Your task to perform on an android device: Go to wifi settings Image 0: 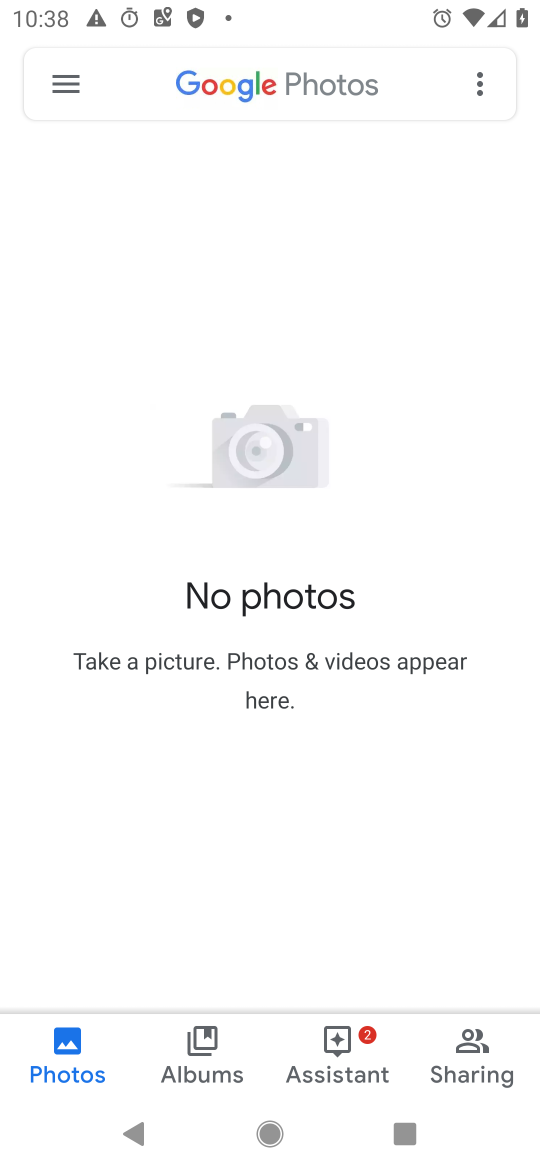
Step 0: press home button
Your task to perform on an android device: Go to wifi settings Image 1: 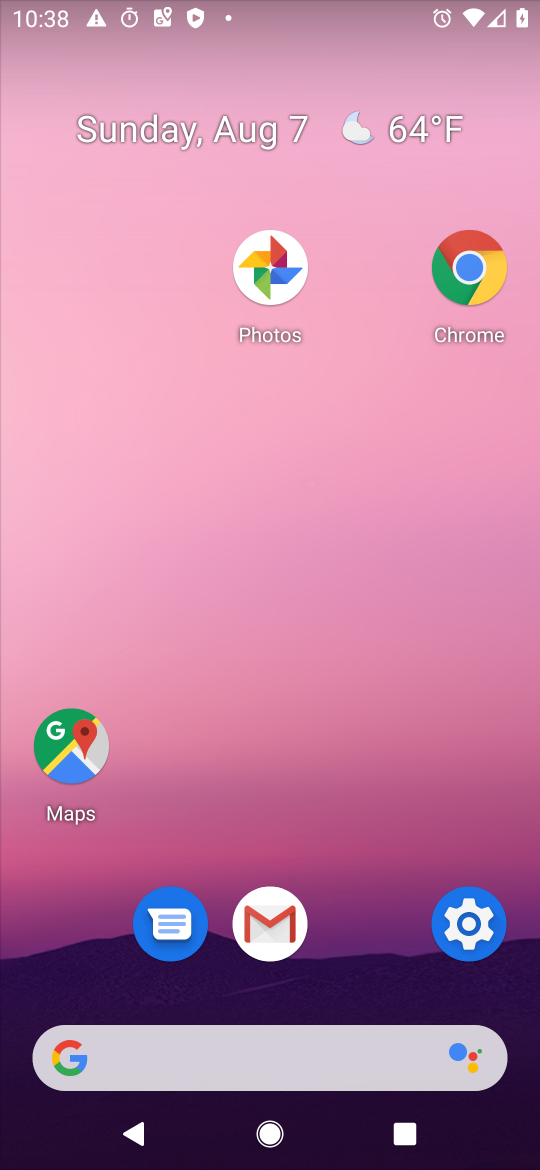
Step 1: drag from (351, 1089) to (335, 427)
Your task to perform on an android device: Go to wifi settings Image 2: 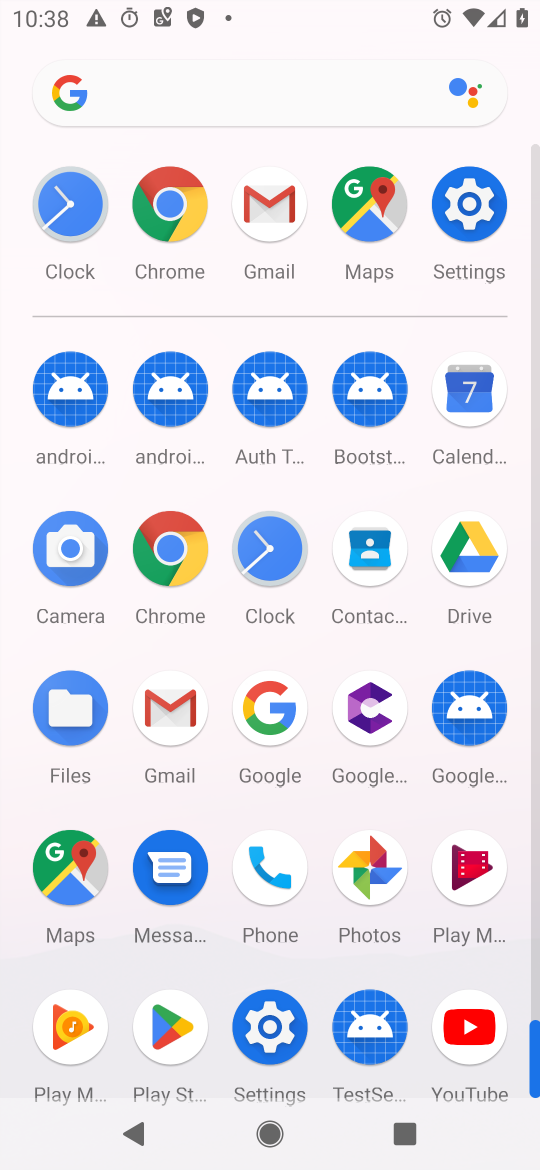
Step 2: click (458, 213)
Your task to perform on an android device: Go to wifi settings Image 3: 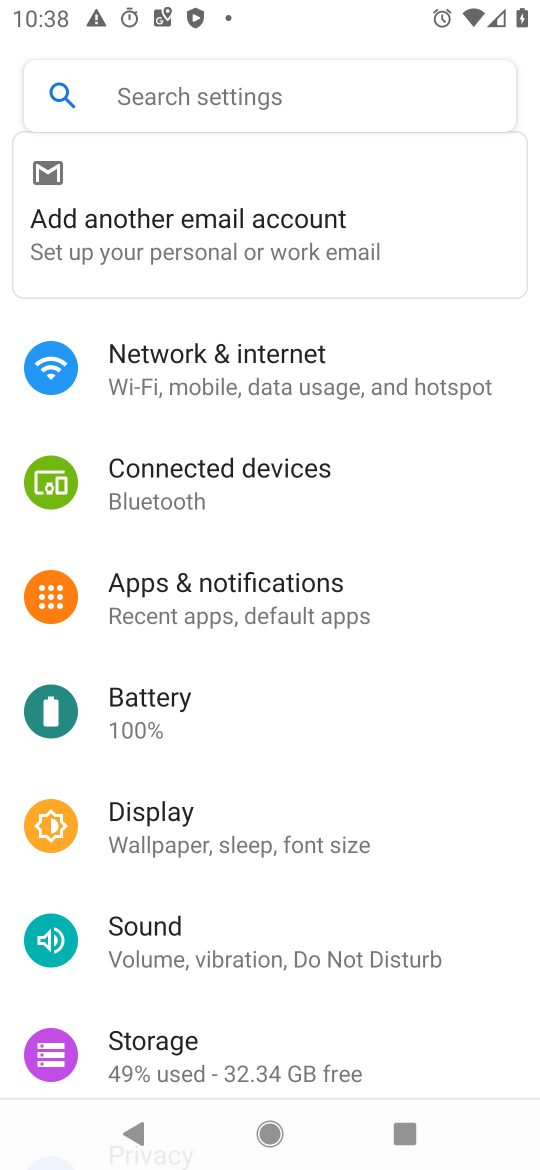
Step 3: click (209, 364)
Your task to perform on an android device: Go to wifi settings Image 4: 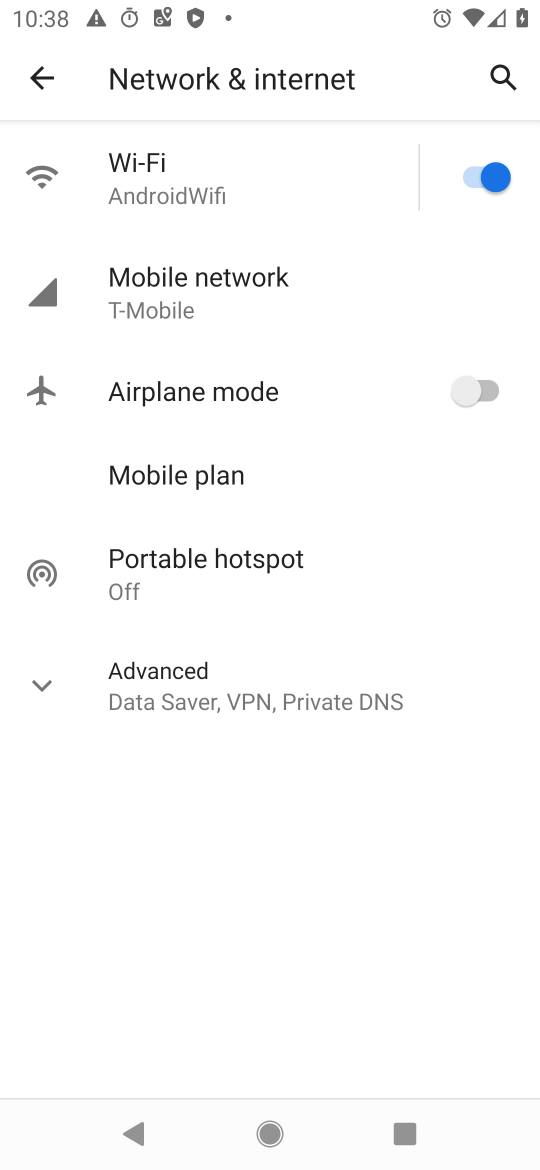
Step 4: click (161, 167)
Your task to perform on an android device: Go to wifi settings Image 5: 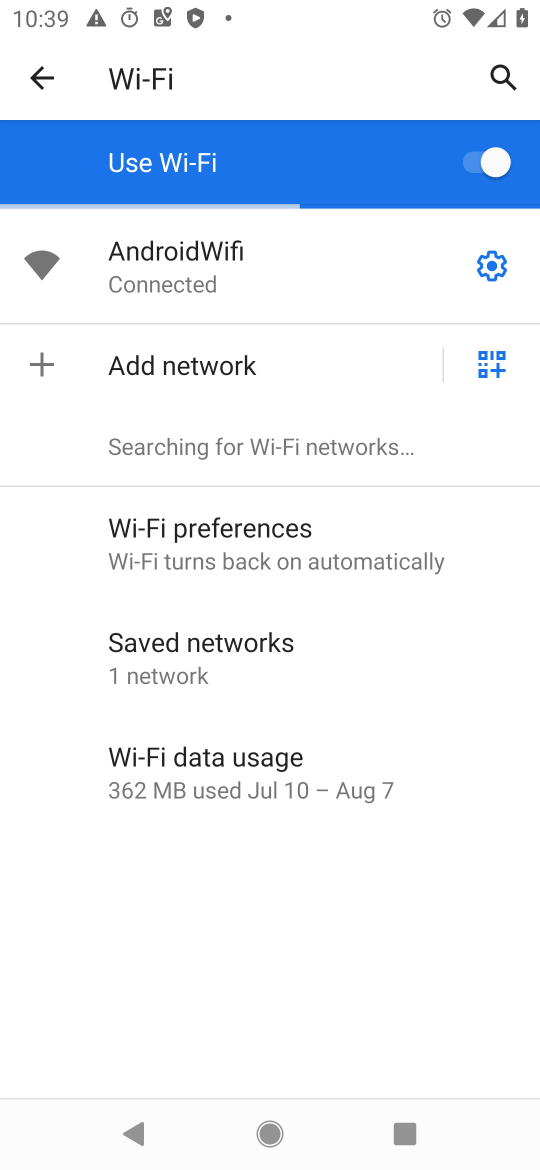
Step 5: task complete